Your task to perform on an android device: Go to display settings Image 0: 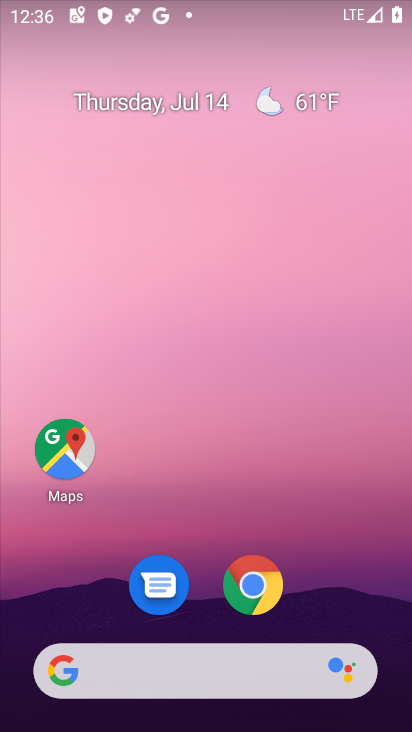
Step 0: drag from (333, 491) to (353, 47)
Your task to perform on an android device: Go to display settings Image 1: 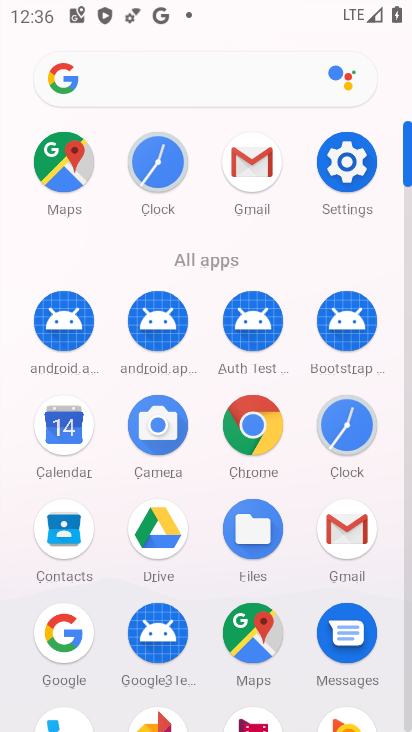
Step 1: click (349, 151)
Your task to perform on an android device: Go to display settings Image 2: 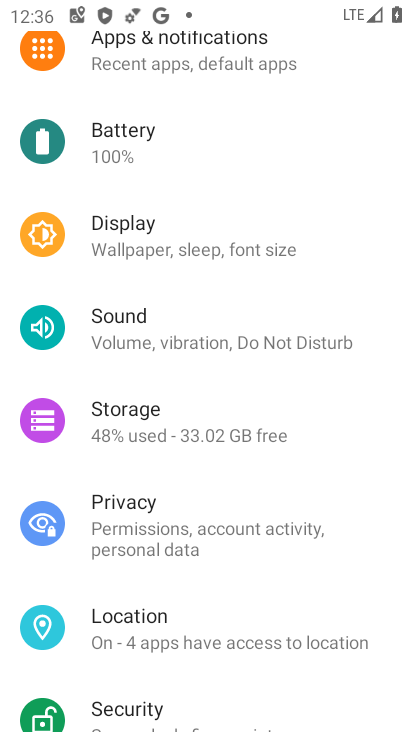
Step 2: click (254, 242)
Your task to perform on an android device: Go to display settings Image 3: 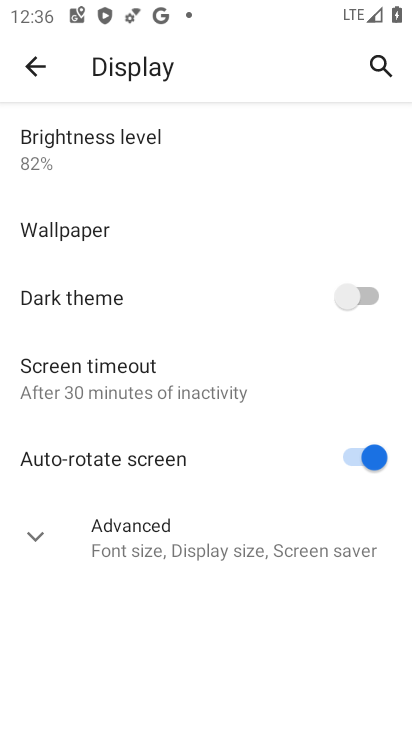
Step 3: click (36, 532)
Your task to perform on an android device: Go to display settings Image 4: 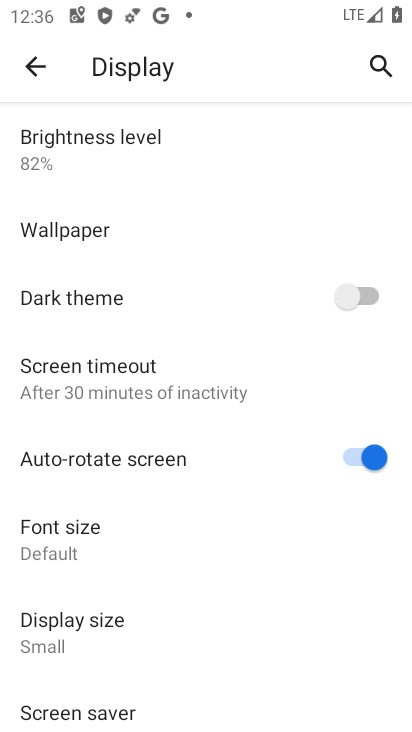
Step 4: task complete